Your task to perform on an android device: empty trash in google photos Image 0: 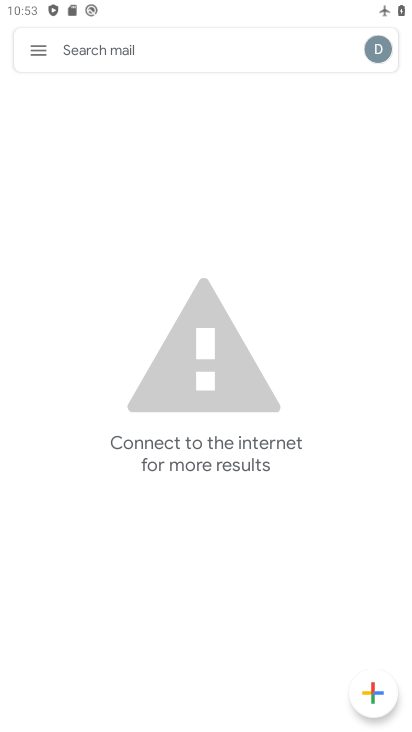
Step 0: press home button
Your task to perform on an android device: empty trash in google photos Image 1: 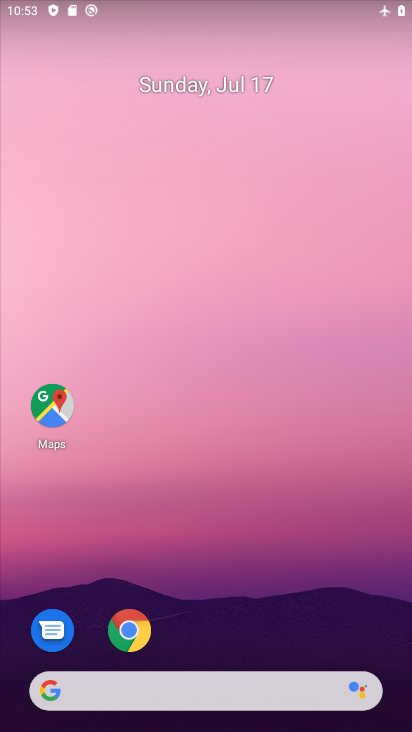
Step 1: drag from (221, 660) to (234, 125)
Your task to perform on an android device: empty trash in google photos Image 2: 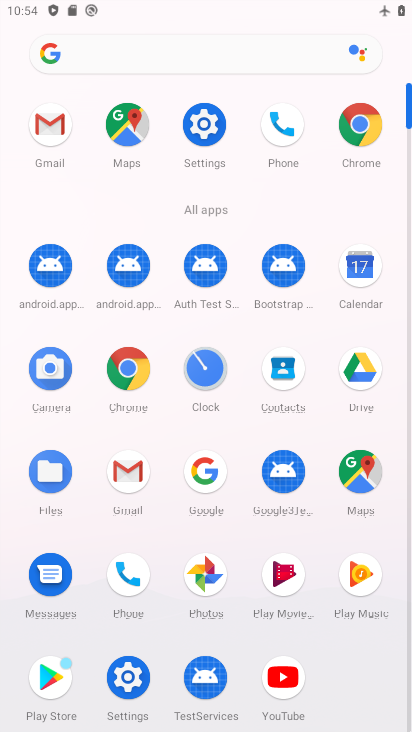
Step 2: click (196, 569)
Your task to perform on an android device: empty trash in google photos Image 3: 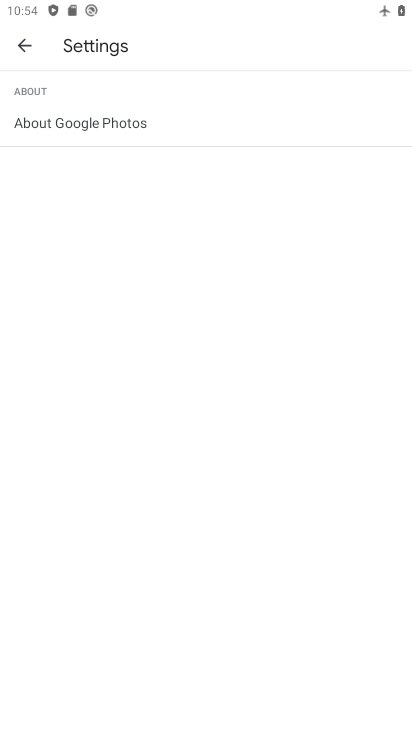
Step 3: click (22, 50)
Your task to perform on an android device: empty trash in google photos Image 4: 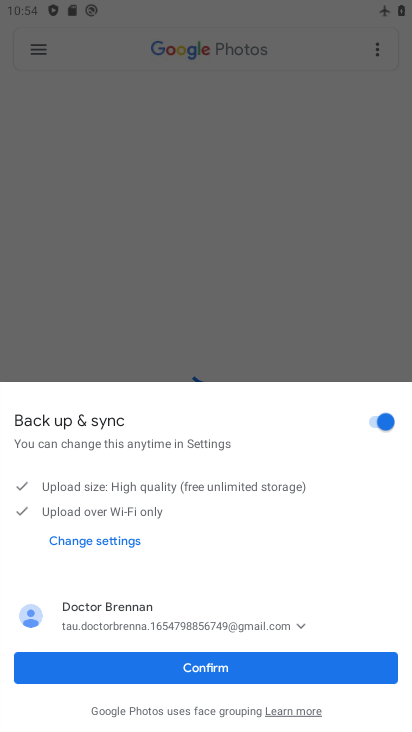
Step 4: click (253, 676)
Your task to perform on an android device: empty trash in google photos Image 5: 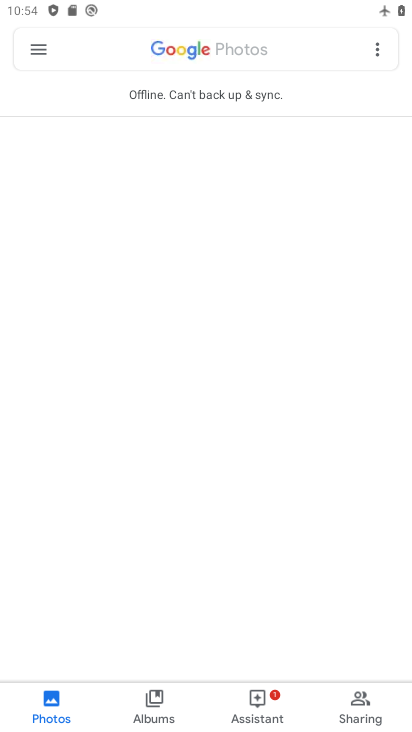
Step 5: click (49, 48)
Your task to perform on an android device: empty trash in google photos Image 6: 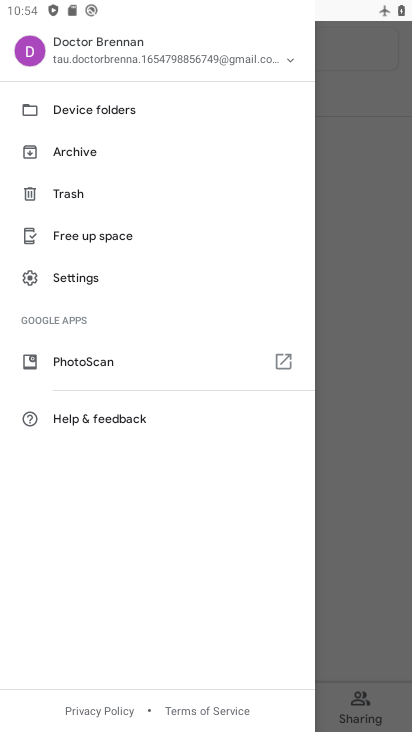
Step 6: click (58, 190)
Your task to perform on an android device: empty trash in google photos Image 7: 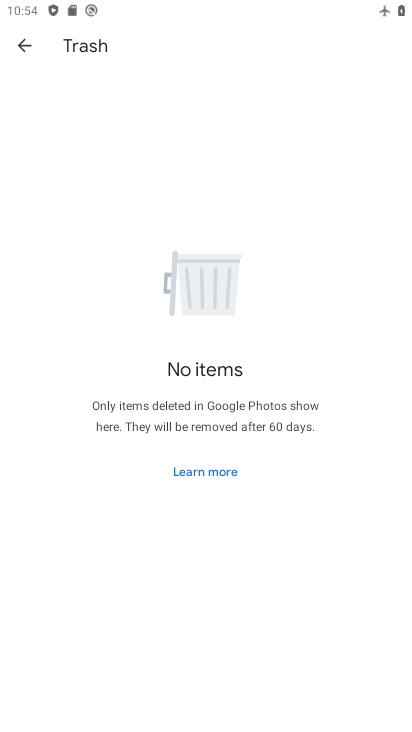
Step 7: task complete